Your task to perform on an android device: clear all cookies in the chrome app Image 0: 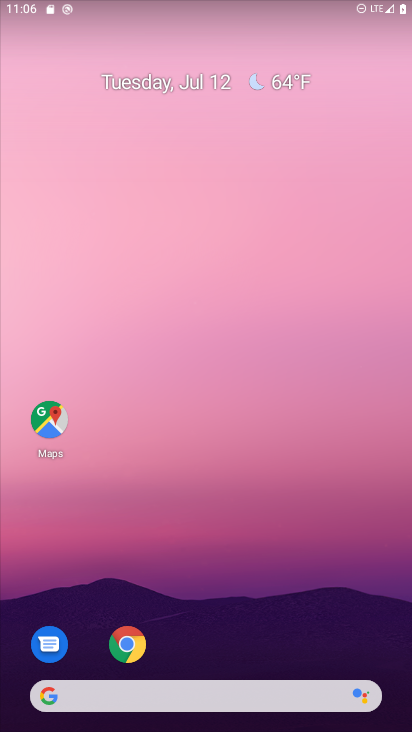
Step 0: click (144, 640)
Your task to perform on an android device: clear all cookies in the chrome app Image 1: 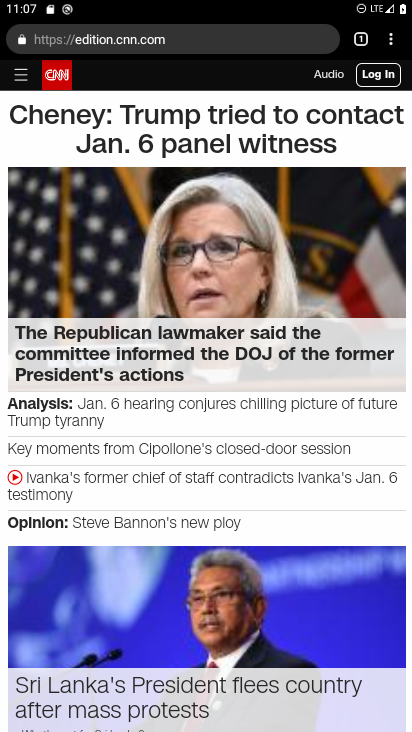
Step 1: click (386, 43)
Your task to perform on an android device: clear all cookies in the chrome app Image 2: 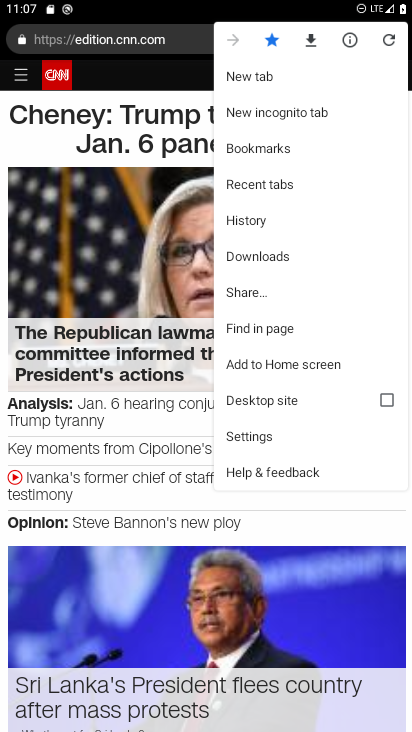
Step 2: click (292, 446)
Your task to perform on an android device: clear all cookies in the chrome app Image 3: 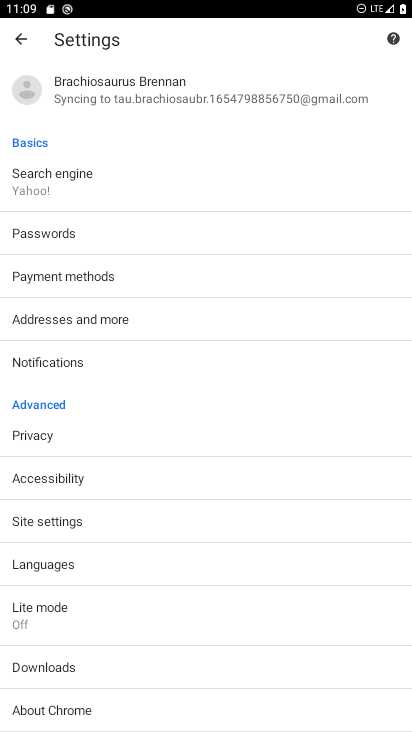
Step 3: task complete